Your task to perform on an android device: Open my contact list Image 0: 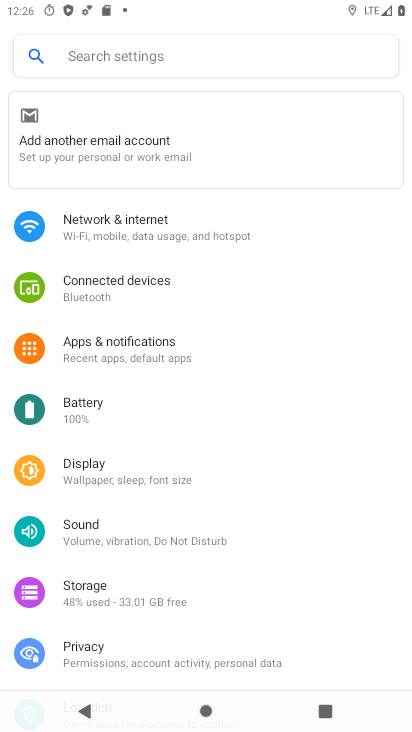
Step 0: press home button
Your task to perform on an android device: Open my contact list Image 1: 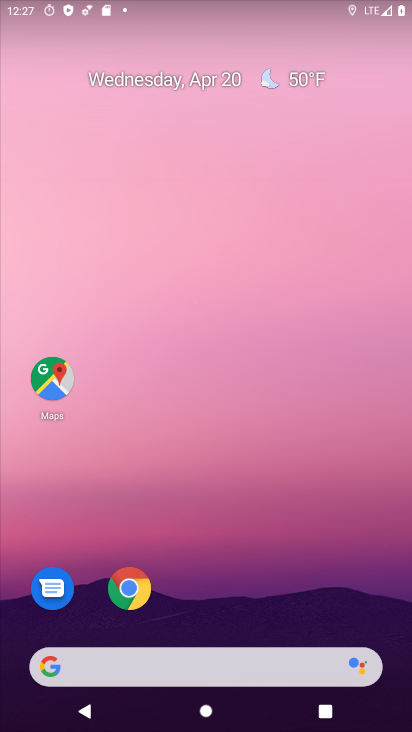
Step 1: drag from (234, 629) to (178, 119)
Your task to perform on an android device: Open my contact list Image 2: 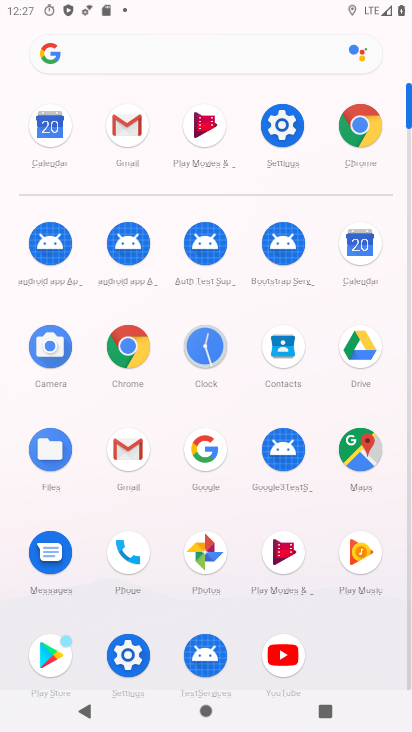
Step 2: click (131, 548)
Your task to perform on an android device: Open my contact list Image 3: 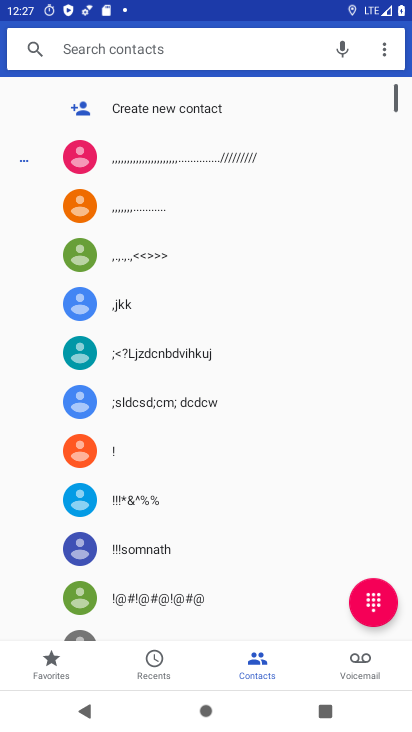
Step 3: task complete